Your task to perform on an android device: Show me popular videos on Youtube Image 0: 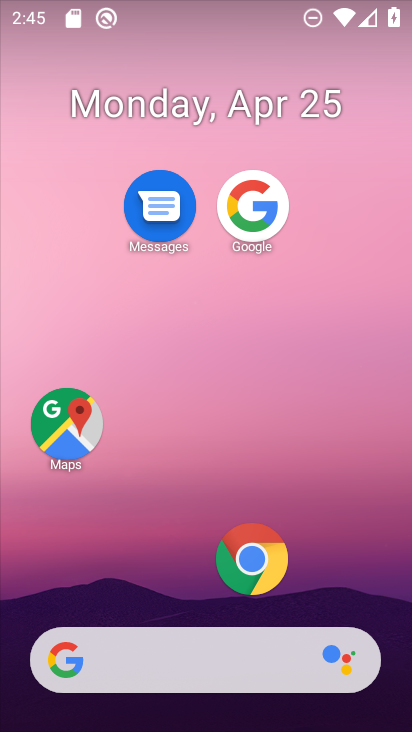
Step 0: drag from (148, 560) to (124, 93)
Your task to perform on an android device: Show me popular videos on Youtube Image 1: 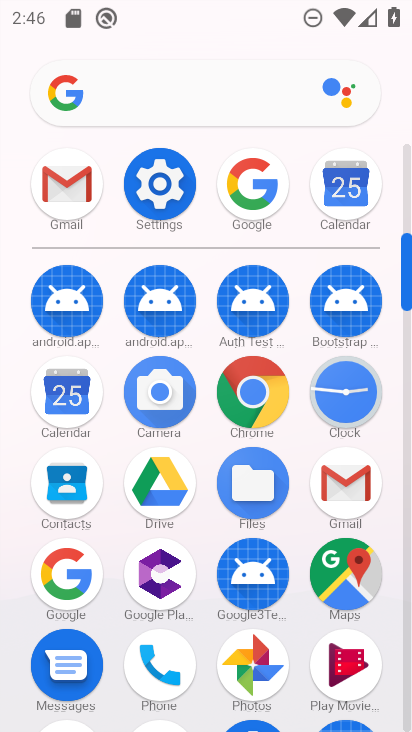
Step 1: drag from (199, 634) to (203, 200)
Your task to perform on an android device: Show me popular videos on Youtube Image 2: 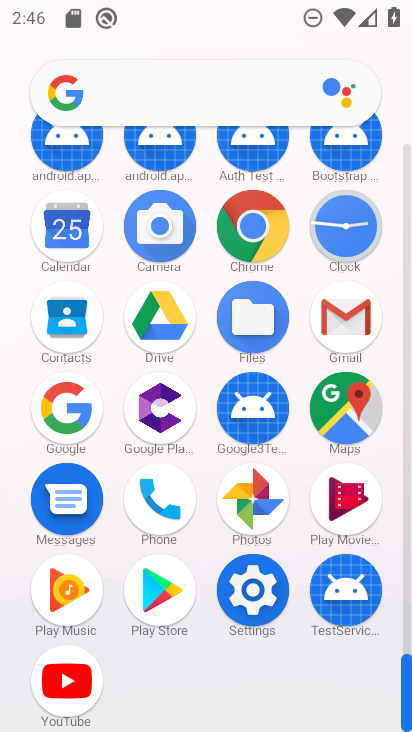
Step 2: click (64, 679)
Your task to perform on an android device: Show me popular videos on Youtube Image 3: 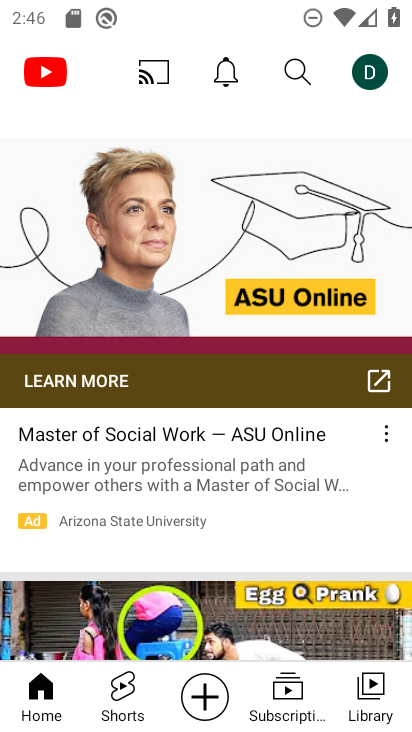
Step 3: task complete